Your task to perform on an android device: turn on showing notifications on the lock screen Image 0: 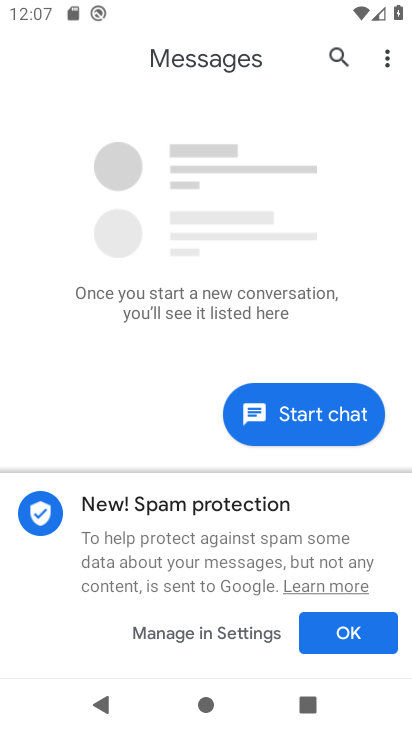
Step 0: press back button
Your task to perform on an android device: turn on showing notifications on the lock screen Image 1: 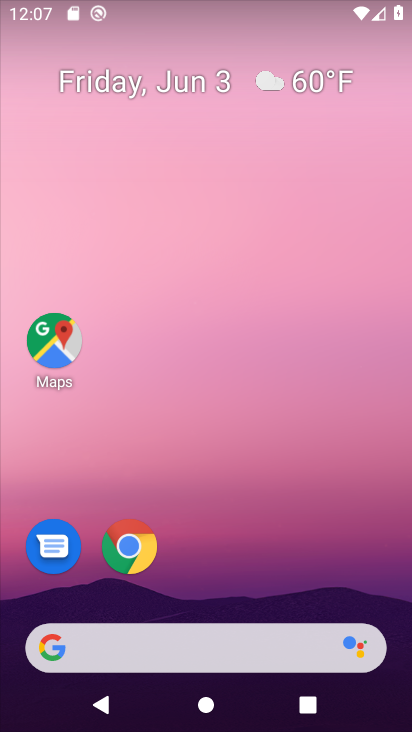
Step 1: drag from (236, 556) to (300, 58)
Your task to perform on an android device: turn on showing notifications on the lock screen Image 2: 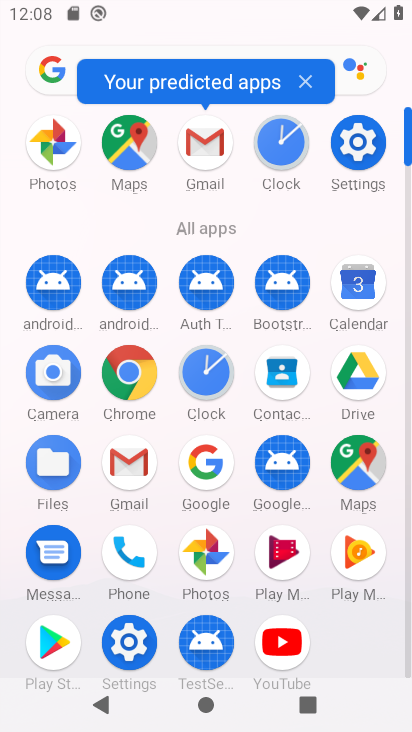
Step 2: click (356, 137)
Your task to perform on an android device: turn on showing notifications on the lock screen Image 3: 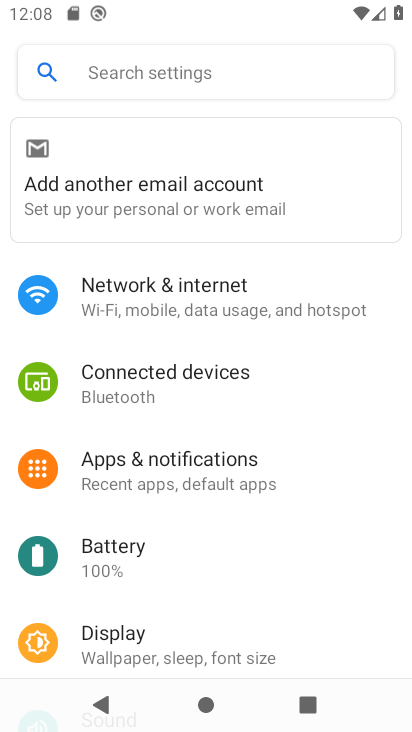
Step 3: drag from (177, 369) to (225, 124)
Your task to perform on an android device: turn on showing notifications on the lock screen Image 4: 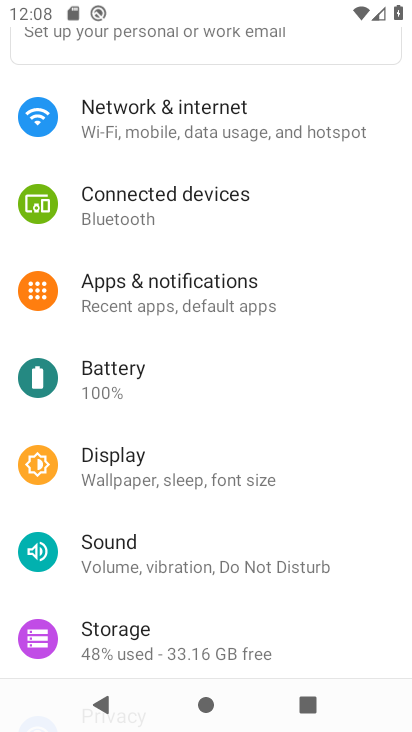
Step 4: click (159, 287)
Your task to perform on an android device: turn on showing notifications on the lock screen Image 5: 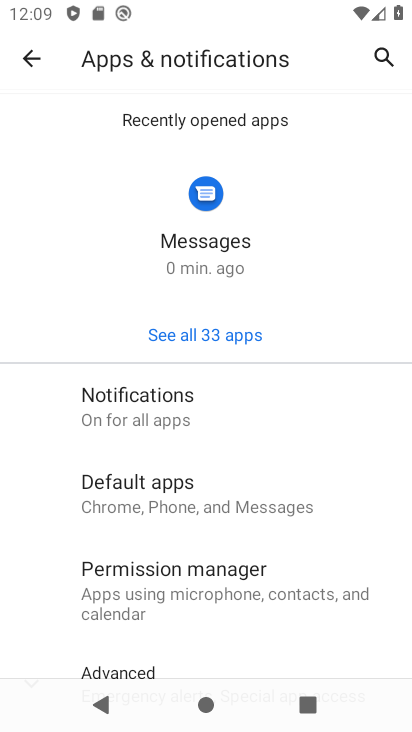
Step 5: drag from (184, 451) to (211, 263)
Your task to perform on an android device: turn on showing notifications on the lock screen Image 6: 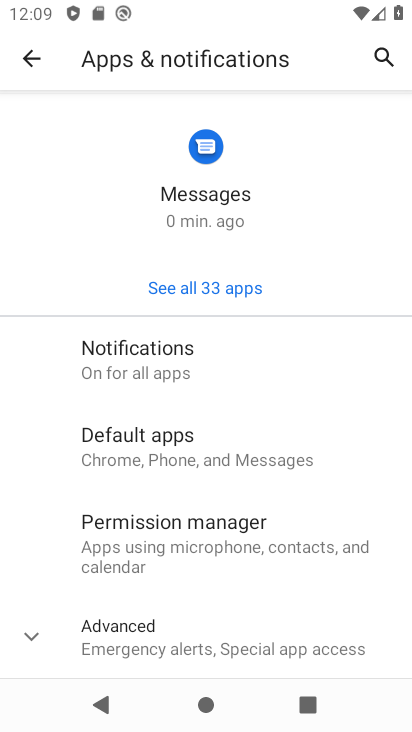
Step 6: click (121, 350)
Your task to perform on an android device: turn on showing notifications on the lock screen Image 7: 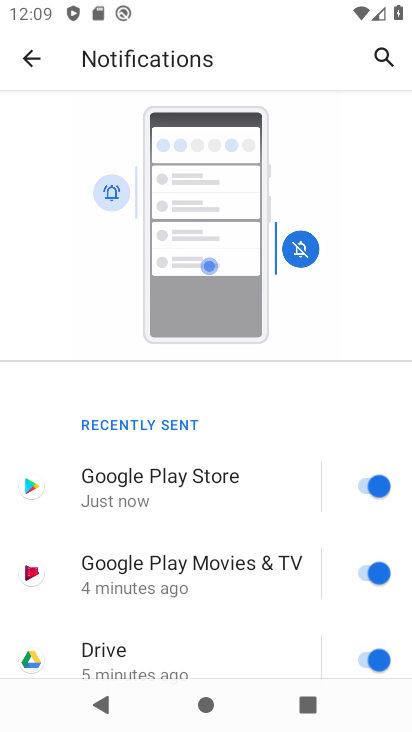
Step 7: drag from (211, 646) to (275, 109)
Your task to perform on an android device: turn on showing notifications on the lock screen Image 8: 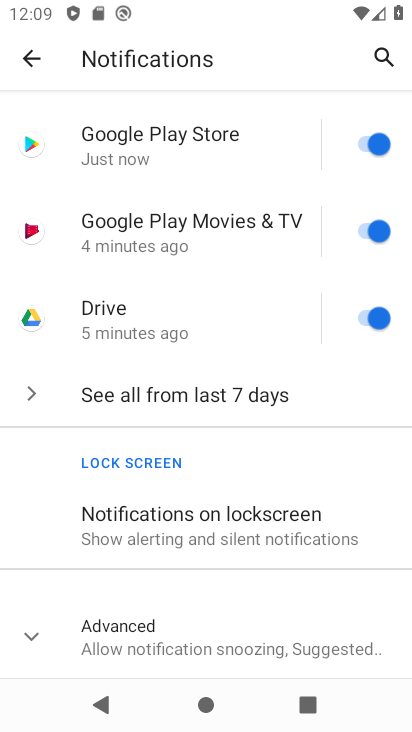
Step 8: click (137, 521)
Your task to perform on an android device: turn on showing notifications on the lock screen Image 9: 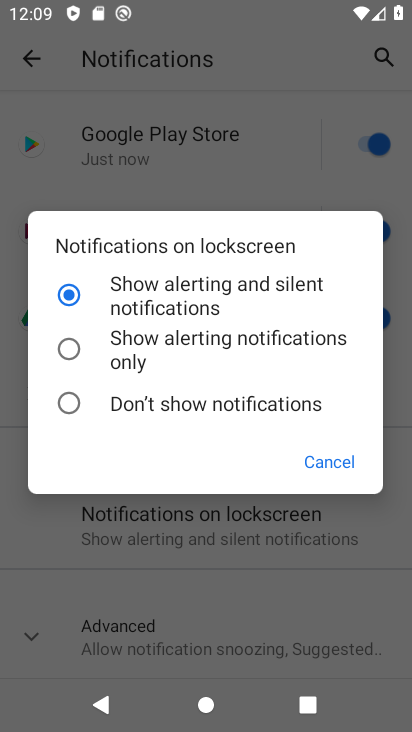
Step 9: task complete